Your task to perform on an android device: change the clock display to show seconds Image 0: 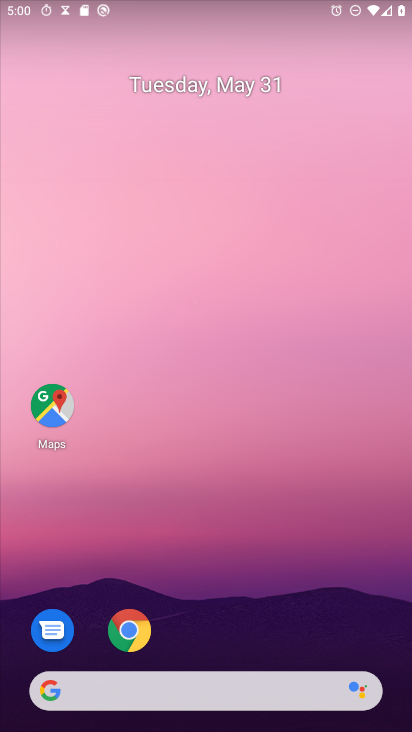
Step 0: drag from (148, 705) to (280, 123)
Your task to perform on an android device: change the clock display to show seconds Image 1: 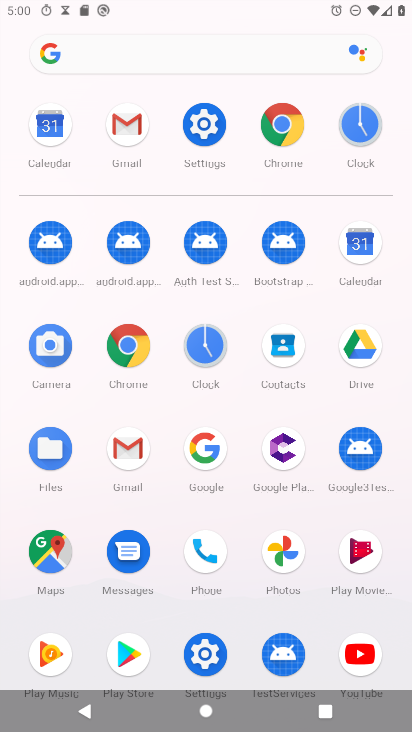
Step 1: click (195, 345)
Your task to perform on an android device: change the clock display to show seconds Image 2: 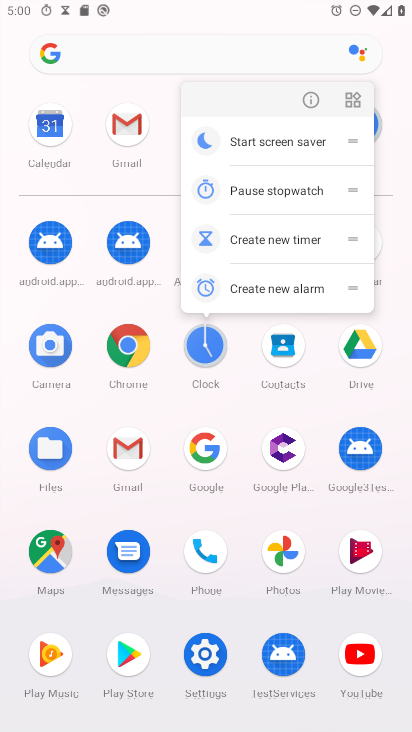
Step 2: click (202, 346)
Your task to perform on an android device: change the clock display to show seconds Image 3: 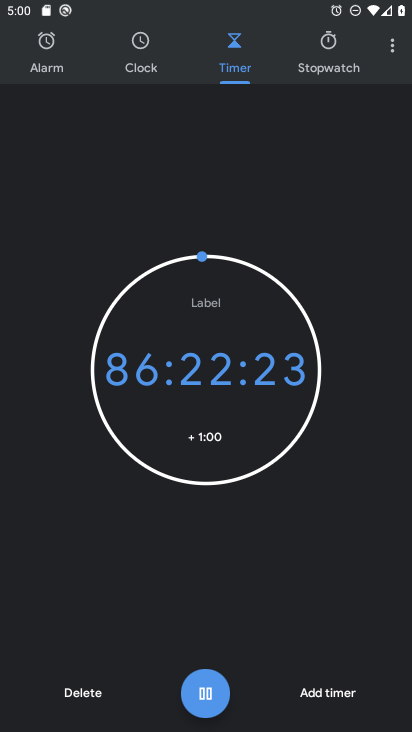
Step 3: click (400, 45)
Your task to perform on an android device: change the clock display to show seconds Image 4: 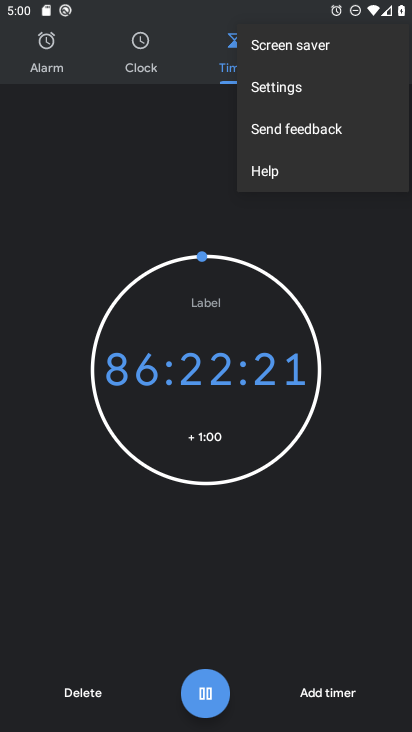
Step 4: click (306, 94)
Your task to perform on an android device: change the clock display to show seconds Image 5: 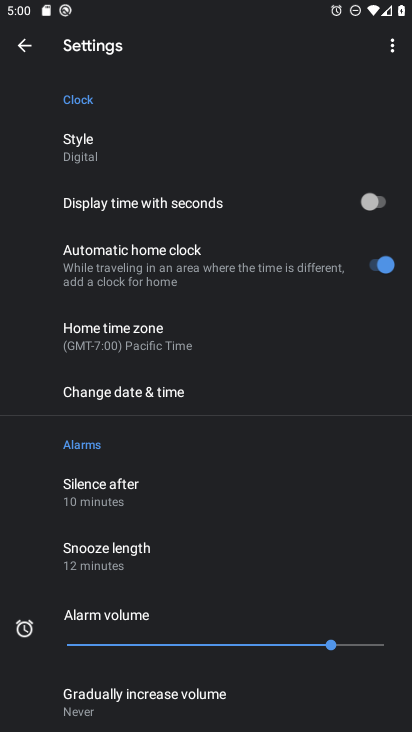
Step 5: click (379, 203)
Your task to perform on an android device: change the clock display to show seconds Image 6: 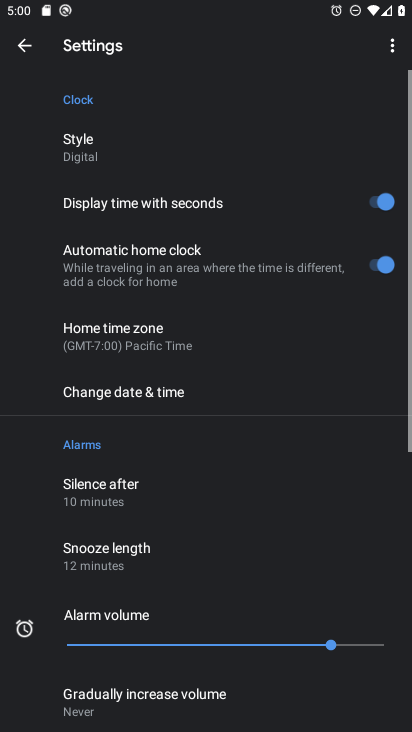
Step 6: task complete